Your task to perform on an android device: search for starred emails in the gmail app Image 0: 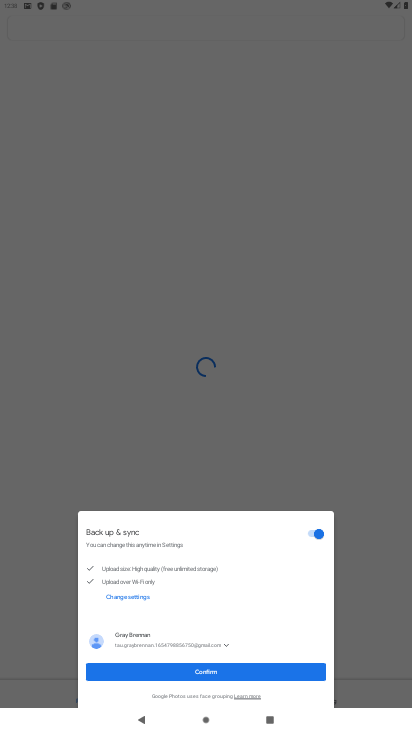
Step 0: press home button
Your task to perform on an android device: search for starred emails in the gmail app Image 1: 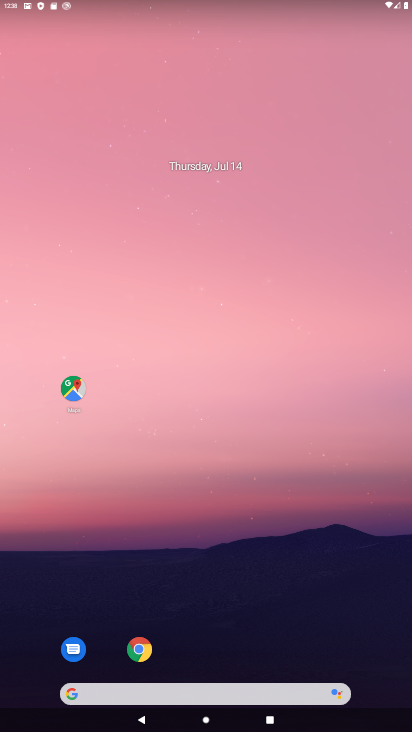
Step 1: drag from (198, 676) to (261, 283)
Your task to perform on an android device: search for starred emails in the gmail app Image 2: 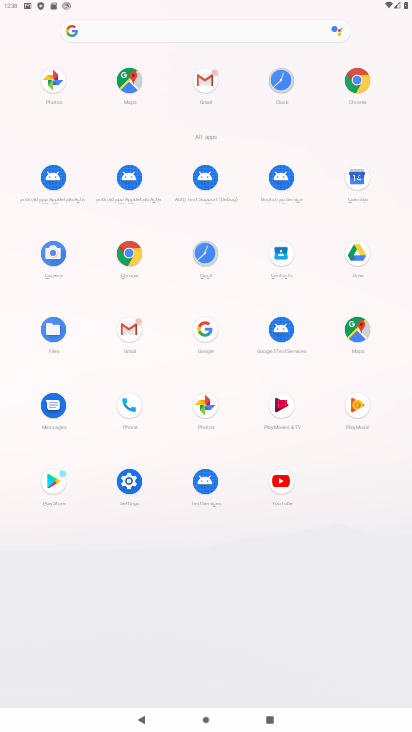
Step 2: click (135, 332)
Your task to perform on an android device: search for starred emails in the gmail app Image 3: 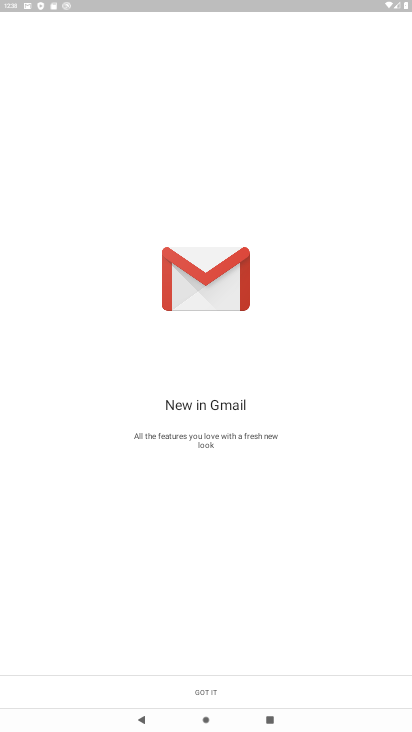
Step 3: click (242, 685)
Your task to perform on an android device: search for starred emails in the gmail app Image 4: 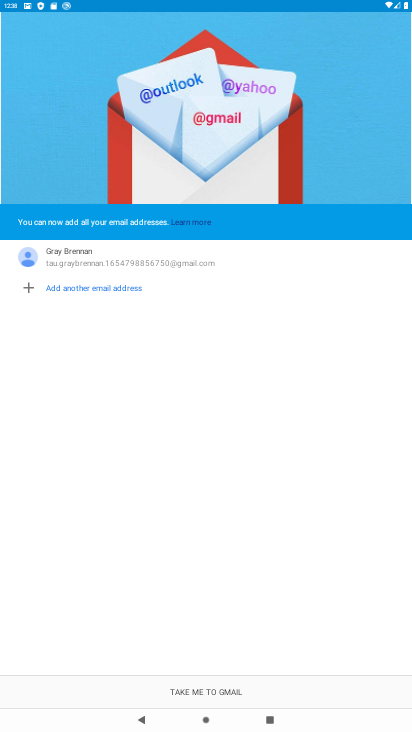
Step 4: click (243, 696)
Your task to perform on an android device: search for starred emails in the gmail app Image 5: 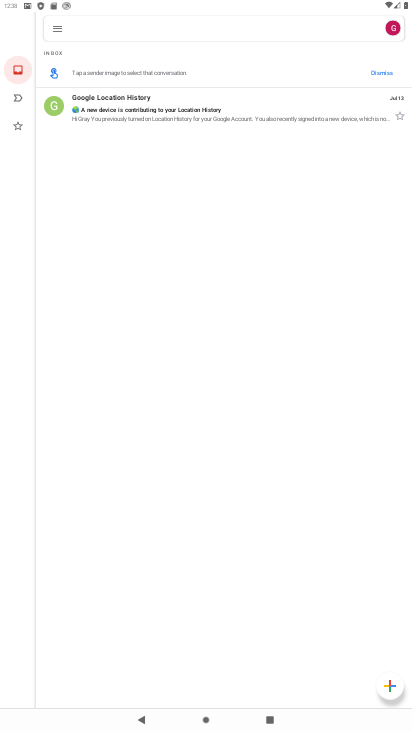
Step 5: click (57, 35)
Your task to perform on an android device: search for starred emails in the gmail app Image 6: 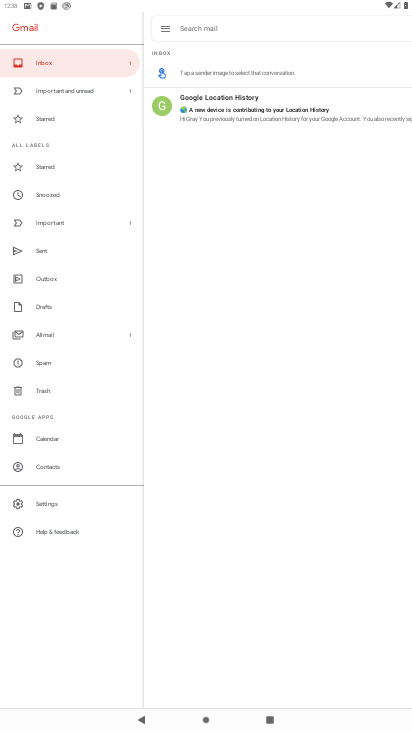
Step 6: click (71, 168)
Your task to perform on an android device: search for starred emails in the gmail app Image 7: 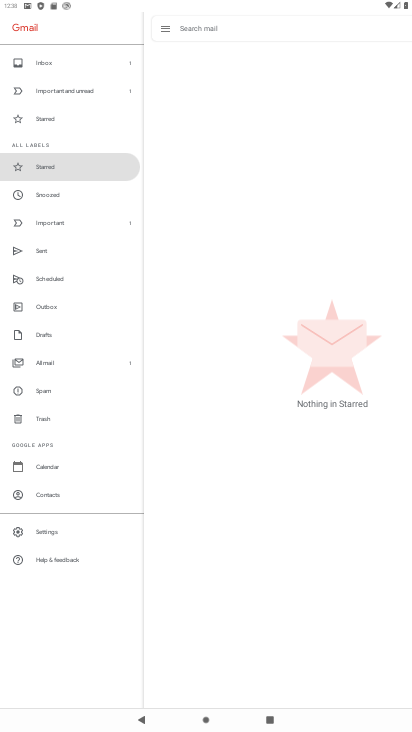
Step 7: task complete